Your task to perform on an android device: Search for seafood restaurants on Google Maps Image 0: 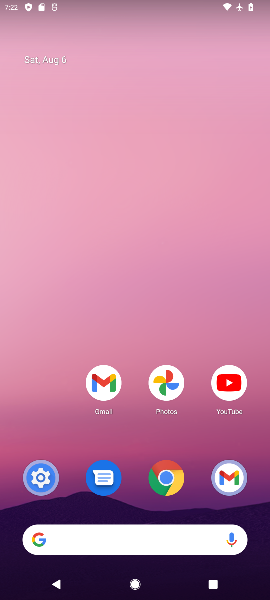
Step 0: press home button
Your task to perform on an android device: Search for seafood restaurants on Google Maps Image 1: 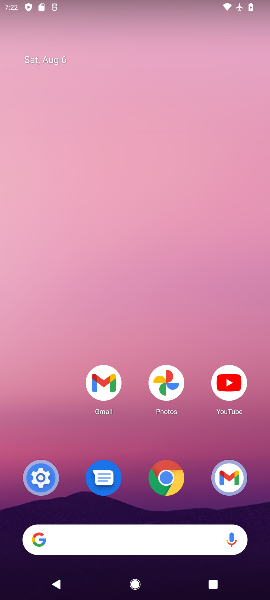
Step 1: drag from (136, 496) to (129, 80)
Your task to perform on an android device: Search for seafood restaurants on Google Maps Image 2: 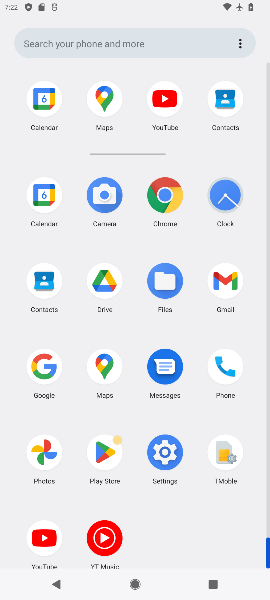
Step 2: click (105, 104)
Your task to perform on an android device: Search for seafood restaurants on Google Maps Image 3: 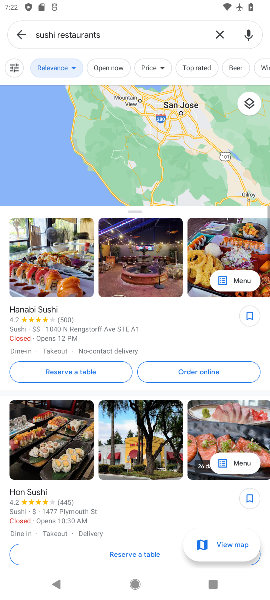
Step 3: click (22, 39)
Your task to perform on an android device: Search for seafood restaurants on Google Maps Image 4: 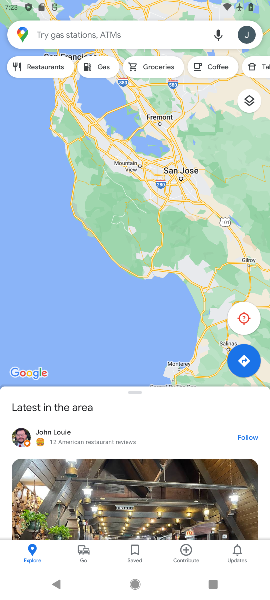
Step 4: click (98, 24)
Your task to perform on an android device: Search for seafood restaurants on Google Maps Image 5: 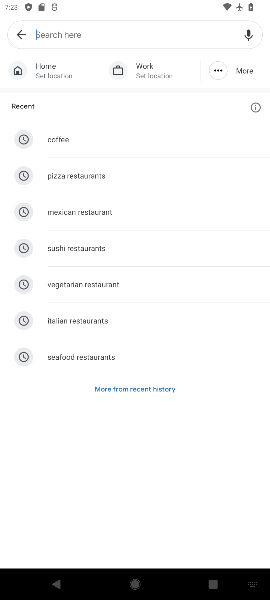
Step 5: click (78, 360)
Your task to perform on an android device: Search for seafood restaurants on Google Maps Image 6: 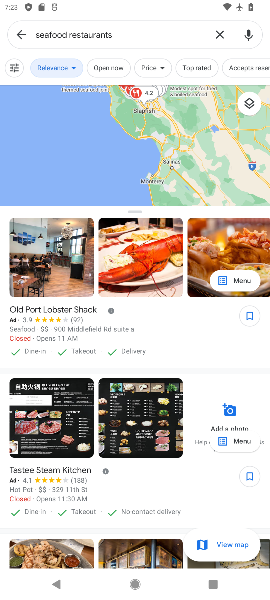
Step 6: task complete